Your task to perform on an android device: visit the assistant section in the google photos Image 0: 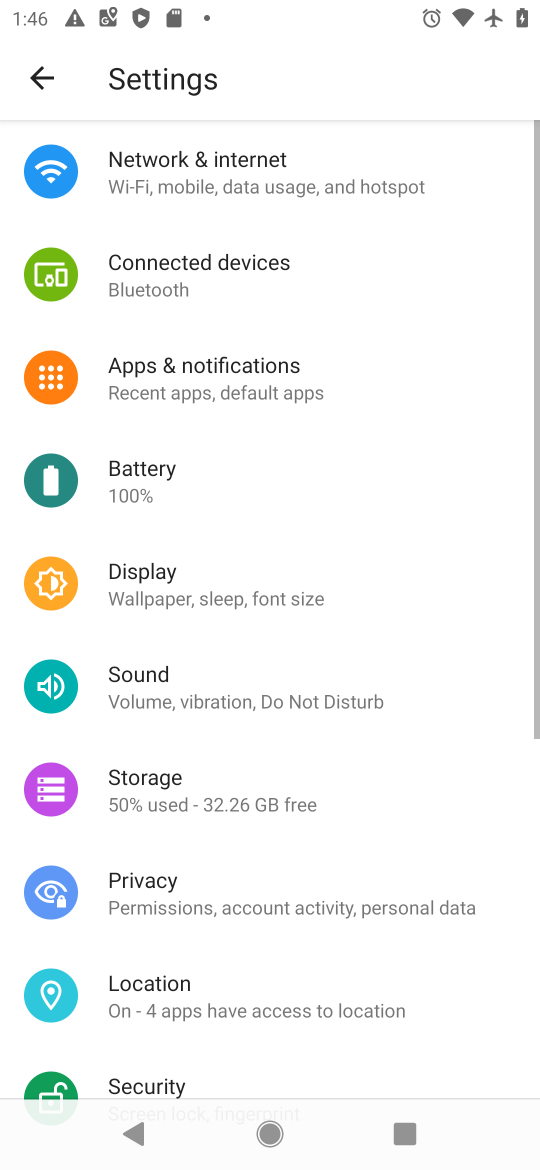
Step 0: press home button
Your task to perform on an android device: visit the assistant section in the google photos Image 1: 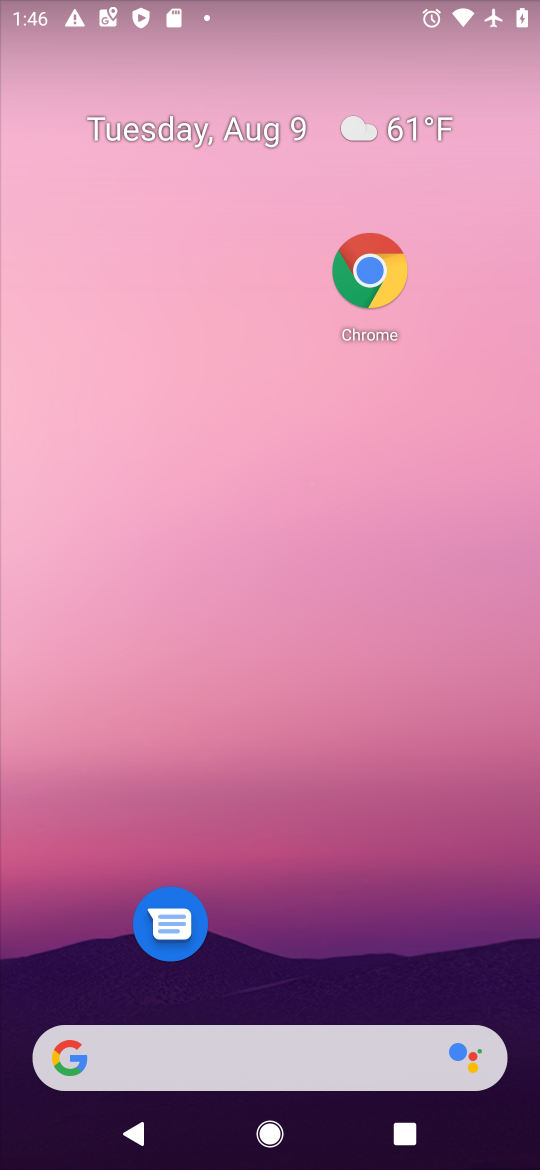
Step 1: drag from (364, 994) to (360, 127)
Your task to perform on an android device: visit the assistant section in the google photos Image 2: 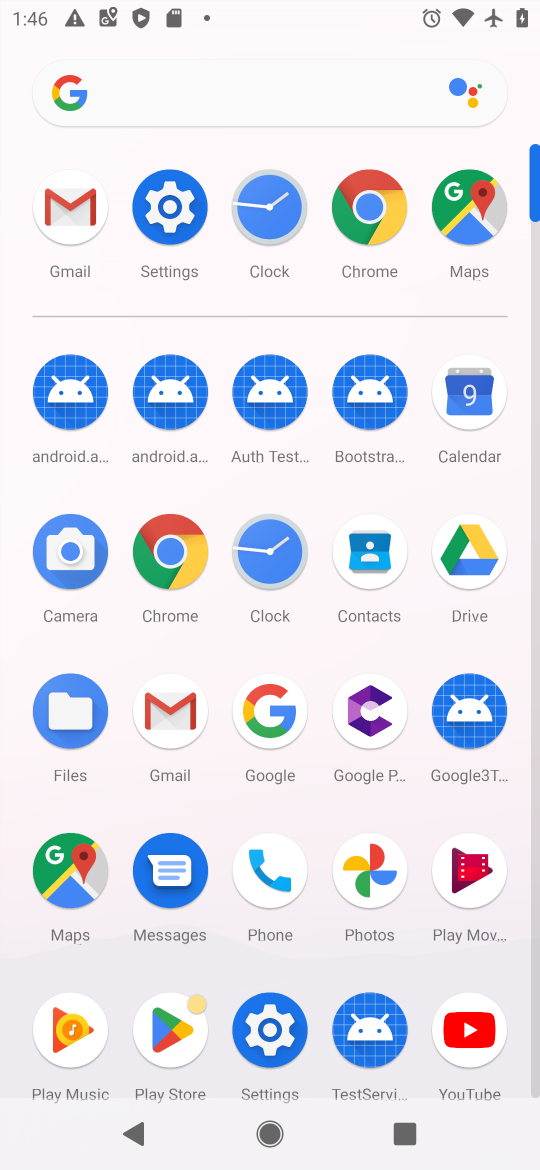
Step 2: click (358, 876)
Your task to perform on an android device: visit the assistant section in the google photos Image 3: 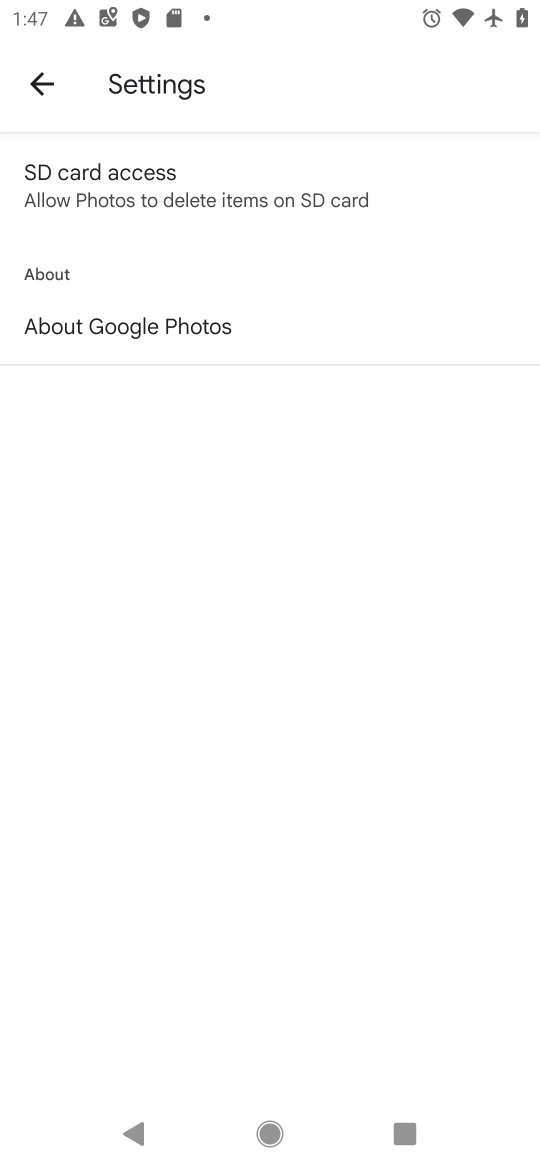
Step 3: click (37, 95)
Your task to perform on an android device: visit the assistant section in the google photos Image 4: 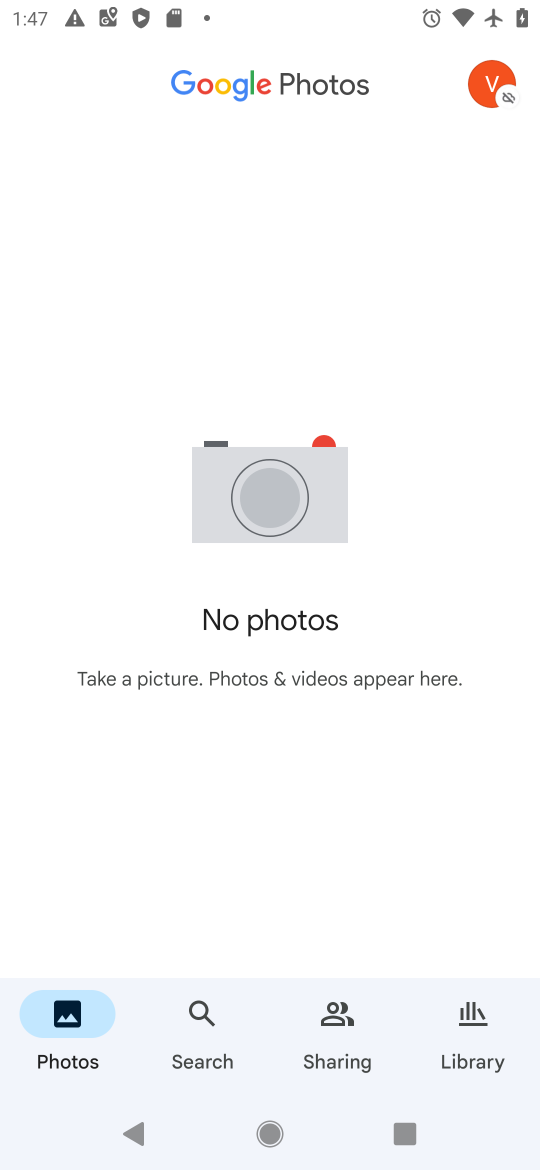
Step 4: click (440, 1016)
Your task to perform on an android device: visit the assistant section in the google photos Image 5: 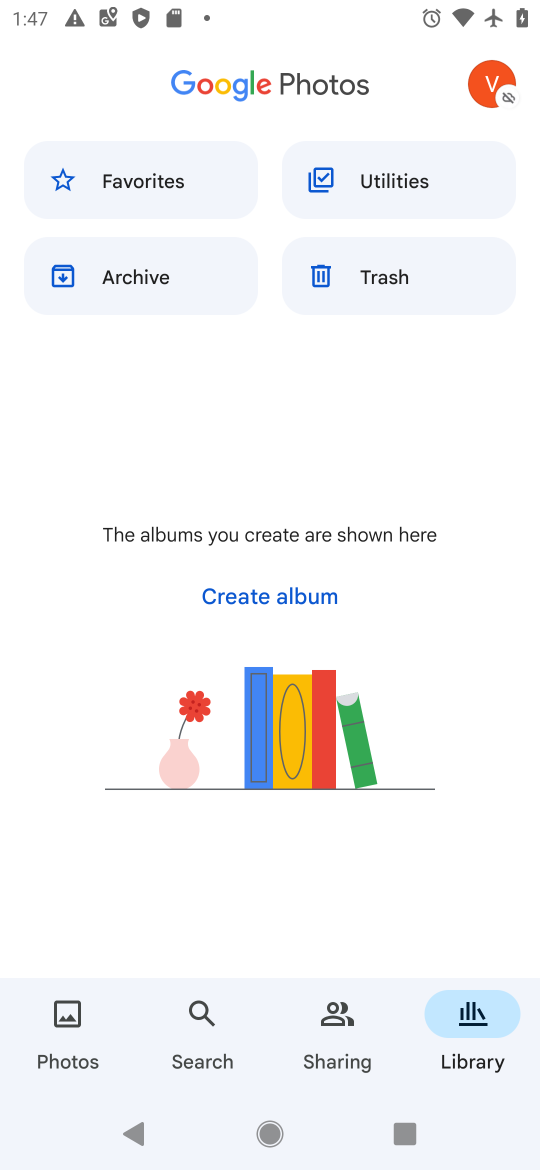
Step 5: task complete